Your task to perform on an android device: turn off data saver in the chrome app Image 0: 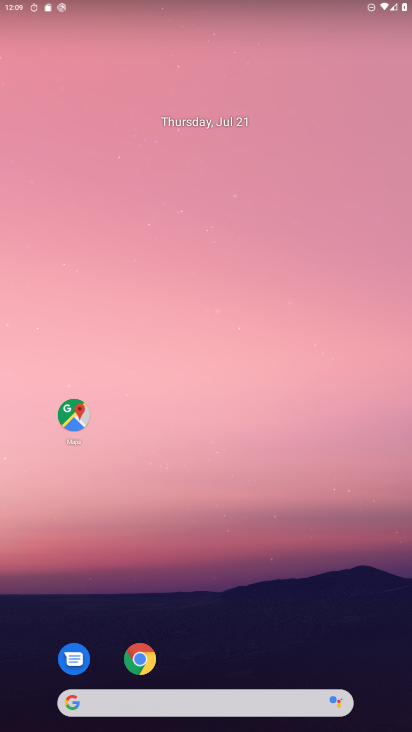
Step 0: drag from (264, 554) to (201, 55)
Your task to perform on an android device: turn off data saver in the chrome app Image 1: 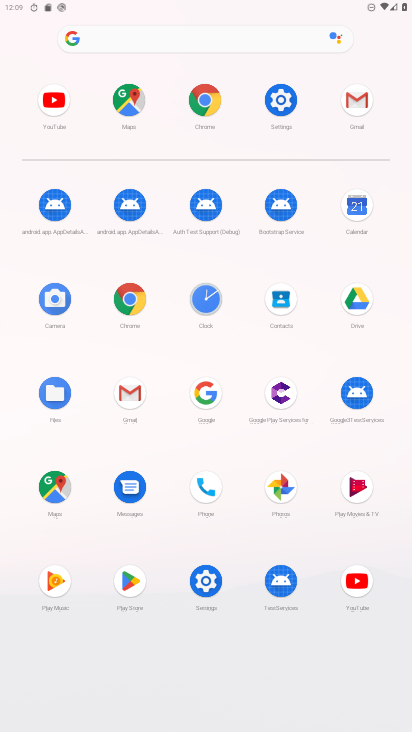
Step 1: click (203, 103)
Your task to perform on an android device: turn off data saver in the chrome app Image 2: 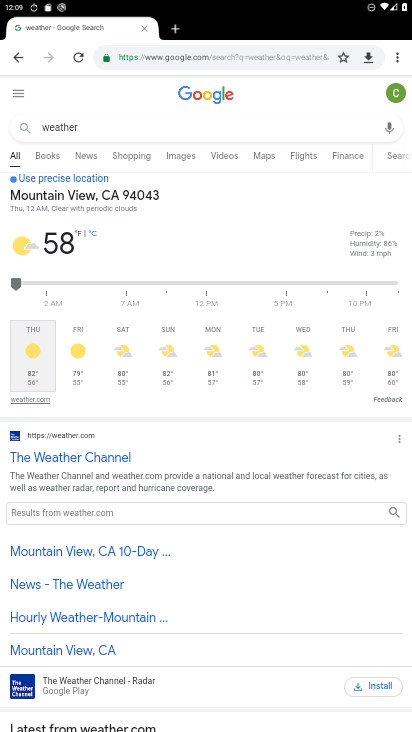
Step 2: drag from (397, 50) to (274, 357)
Your task to perform on an android device: turn off data saver in the chrome app Image 3: 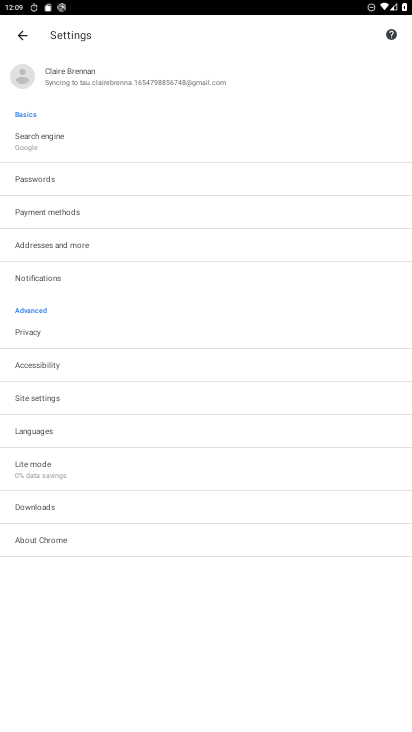
Step 3: click (59, 464)
Your task to perform on an android device: turn off data saver in the chrome app Image 4: 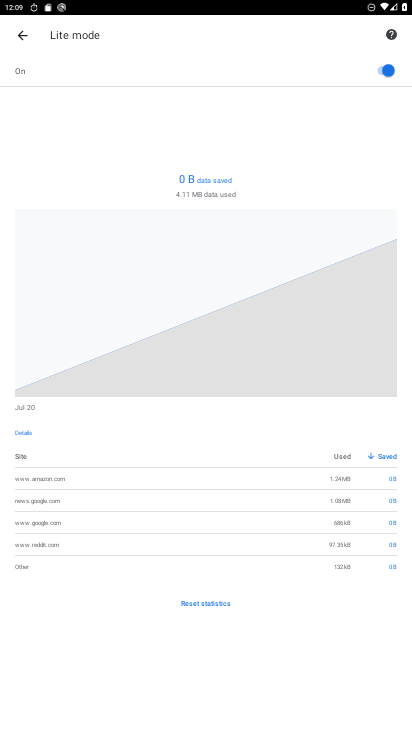
Step 4: click (387, 73)
Your task to perform on an android device: turn off data saver in the chrome app Image 5: 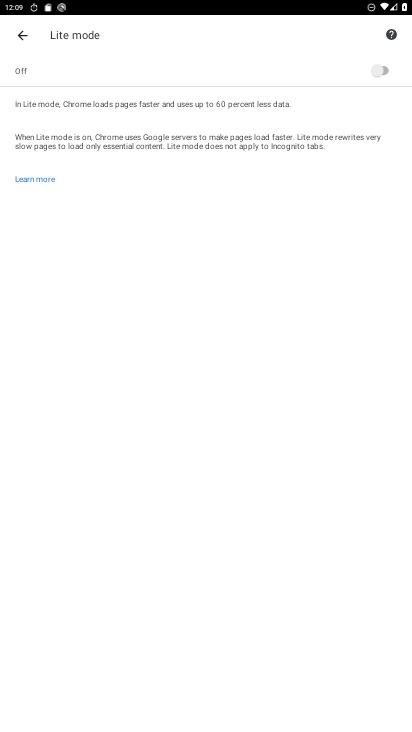
Step 5: task complete